Your task to perform on an android device: What time is it in Moscow? Image 0: 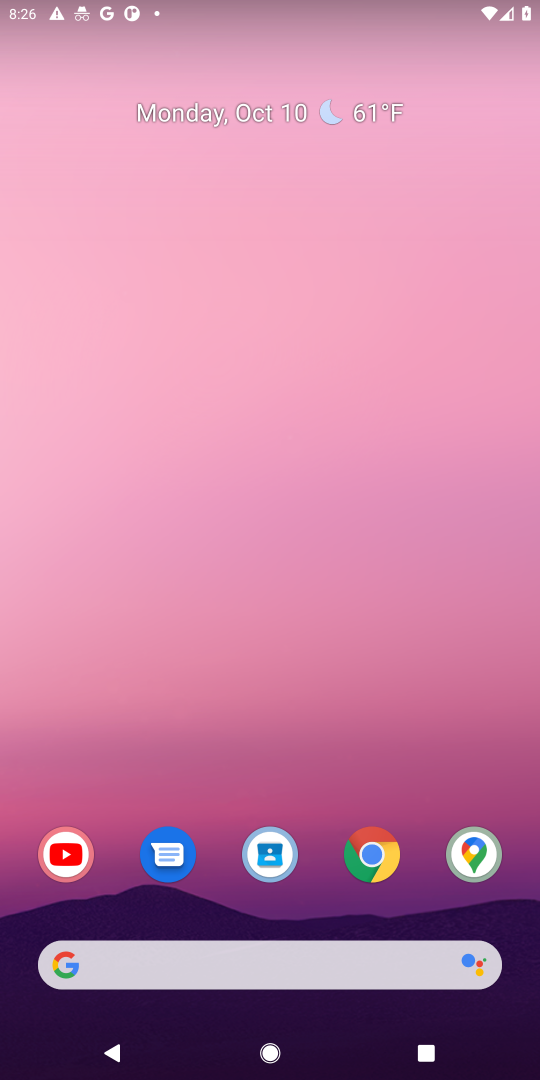
Step 0: click (371, 846)
Your task to perform on an android device: What time is it in Moscow? Image 1: 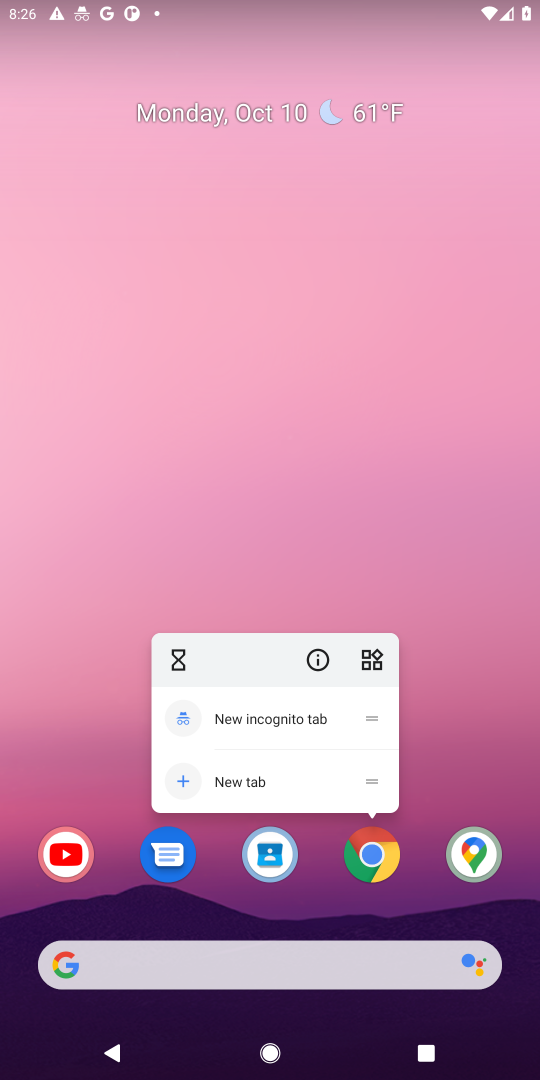
Step 1: click (368, 865)
Your task to perform on an android device: What time is it in Moscow? Image 2: 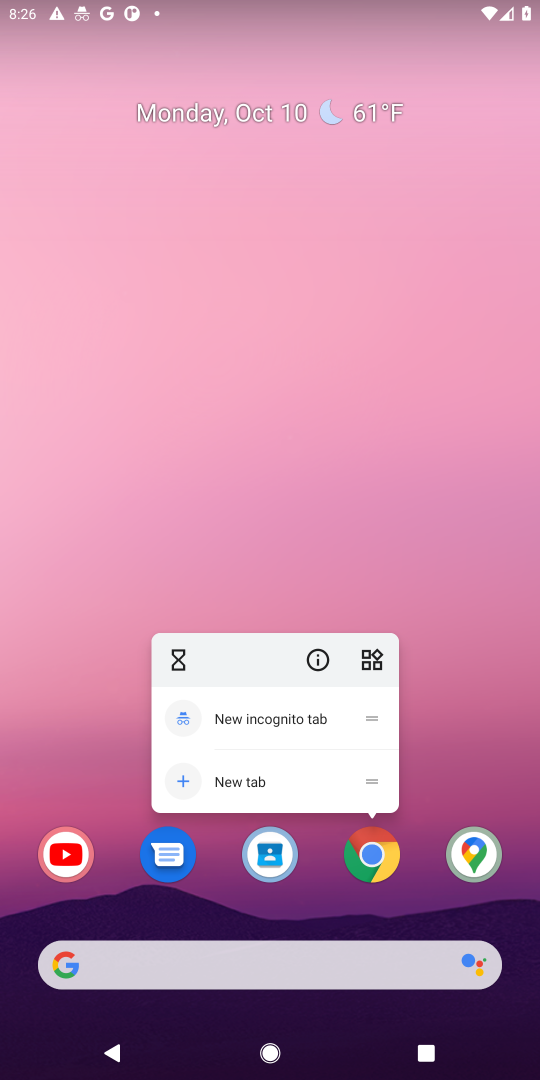
Step 2: click (367, 866)
Your task to perform on an android device: What time is it in Moscow? Image 3: 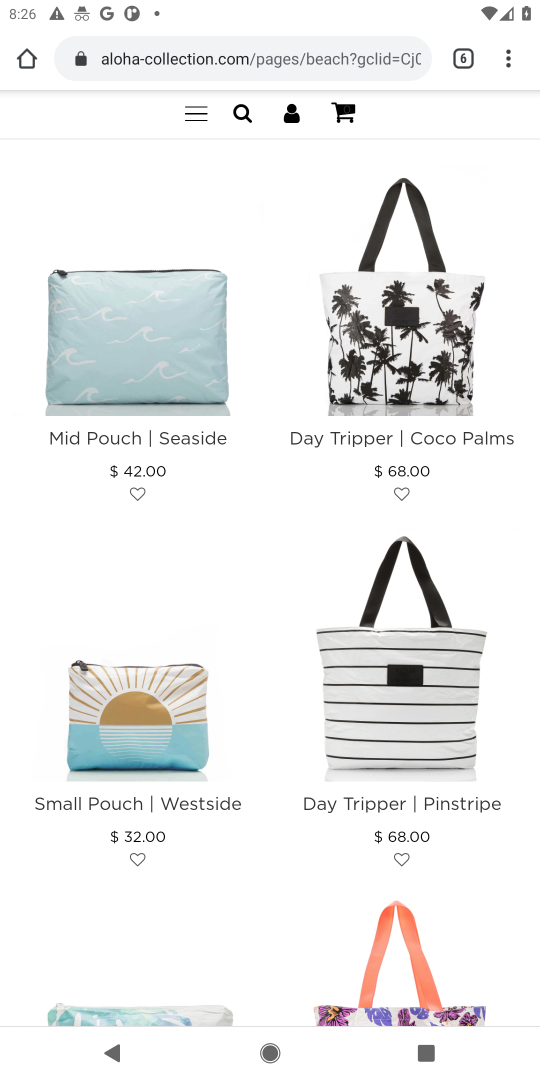
Step 3: click (393, 53)
Your task to perform on an android device: What time is it in Moscow? Image 4: 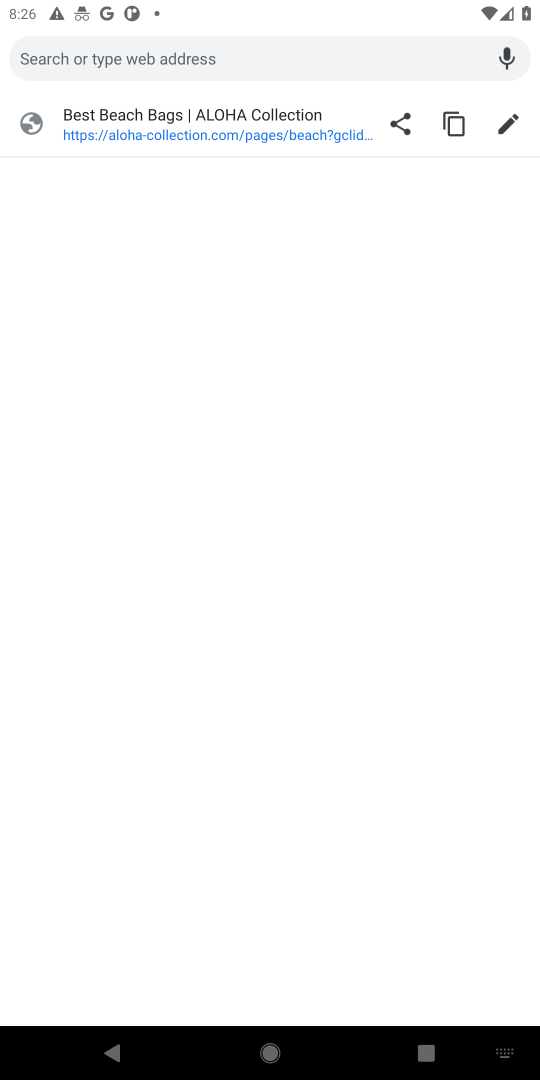
Step 4: type "What time is it in Moscow"
Your task to perform on an android device: What time is it in Moscow? Image 5: 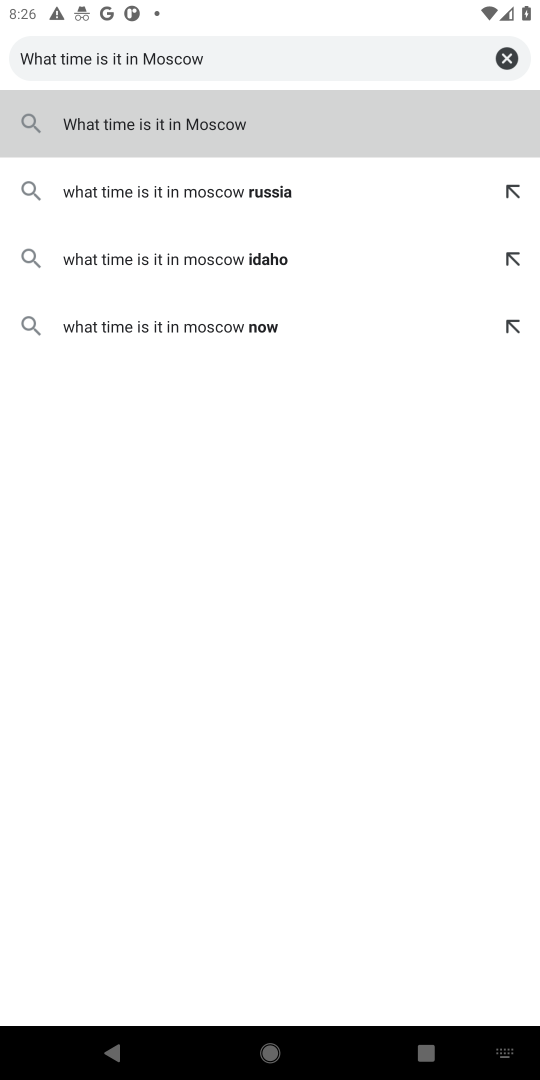
Step 5: click (207, 123)
Your task to perform on an android device: What time is it in Moscow? Image 6: 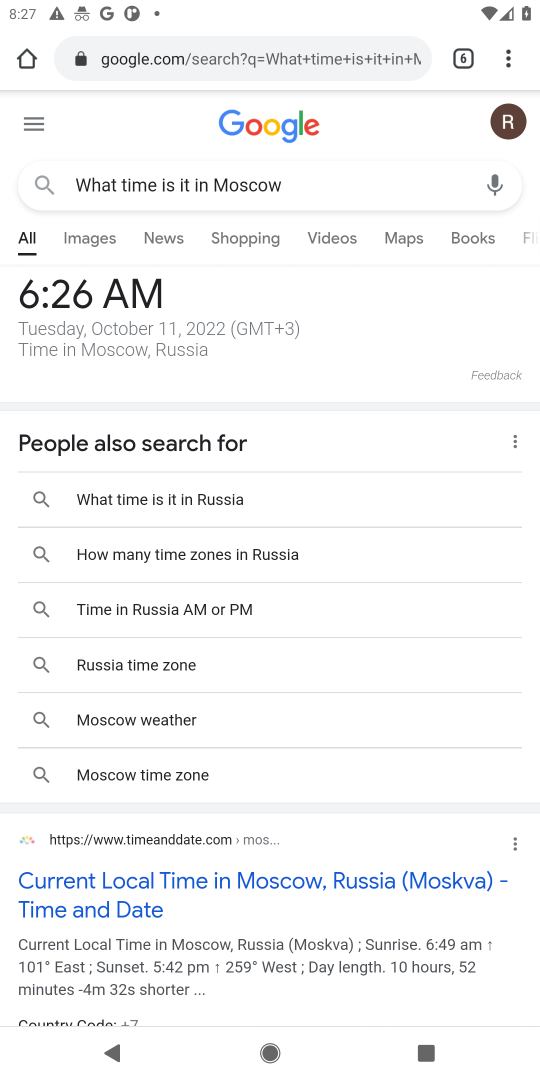
Step 6: task complete